Your task to perform on an android device: delete the emails in spam in the gmail app Image 0: 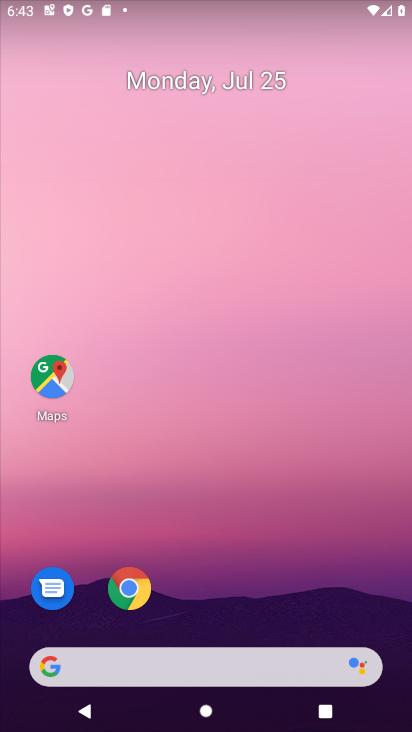
Step 0: drag from (296, 569) to (324, 178)
Your task to perform on an android device: delete the emails in spam in the gmail app Image 1: 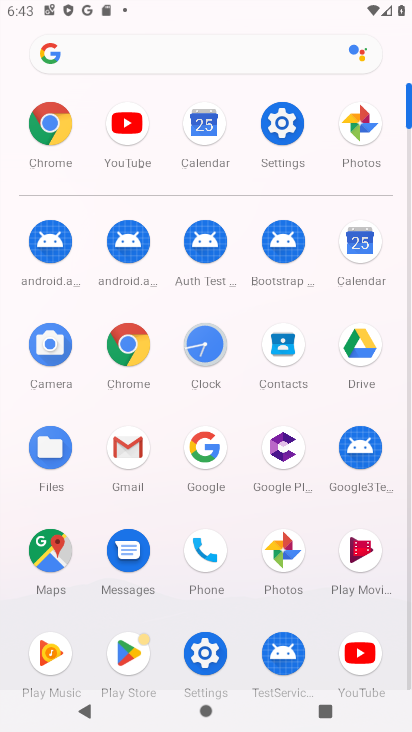
Step 1: click (121, 456)
Your task to perform on an android device: delete the emails in spam in the gmail app Image 2: 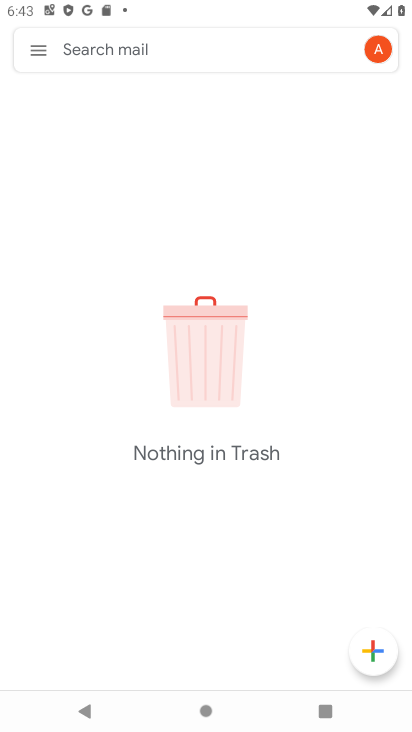
Step 2: click (43, 49)
Your task to perform on an android device: delete the emails in spam in the gmail app Image 3: 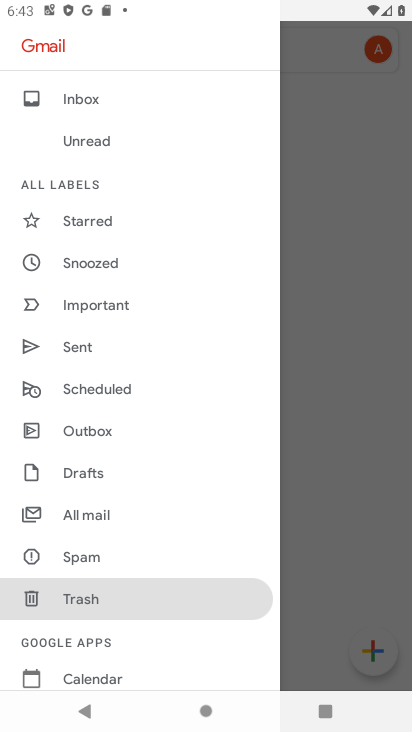
Step 3: click (85, 561)
Your task to perform on an android device: delete the emails in spam in the gmail app Image 4: 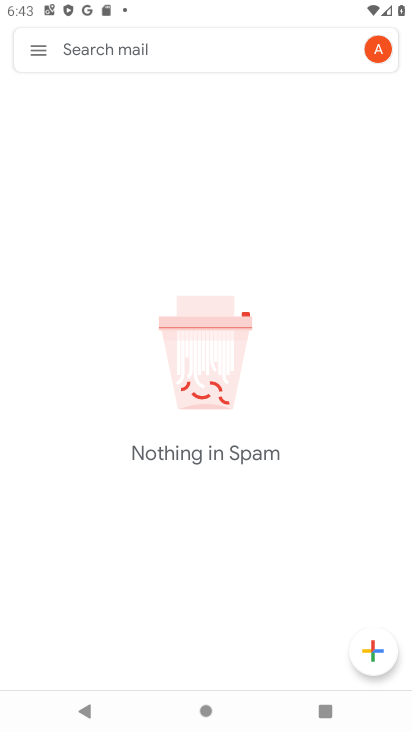
Step 4: task complete